Your task to perform on an android device: check out phone information Image 0: 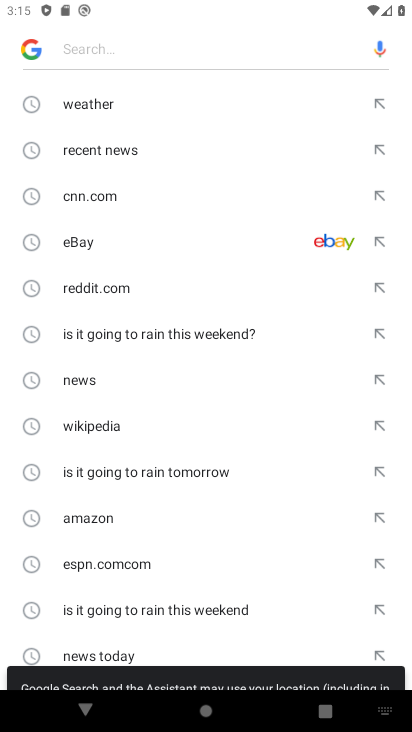
Step 0: press home button
Your task to perform on an android device: check out phone information Image 1: 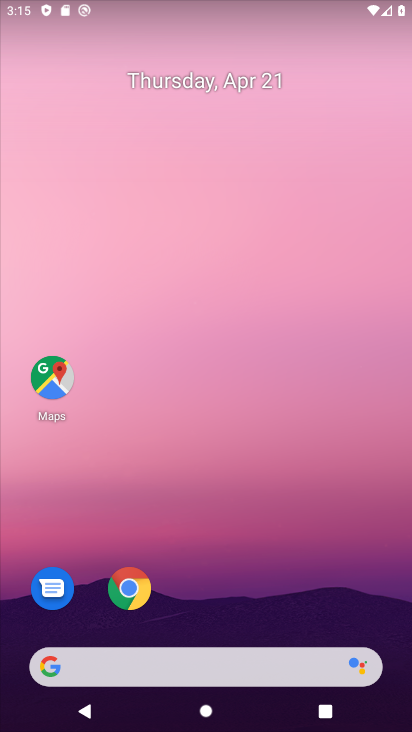
Step 1: drag from (176, 656) to (165, 138)
Your task to perform on an android device: check out phone information Image 2: 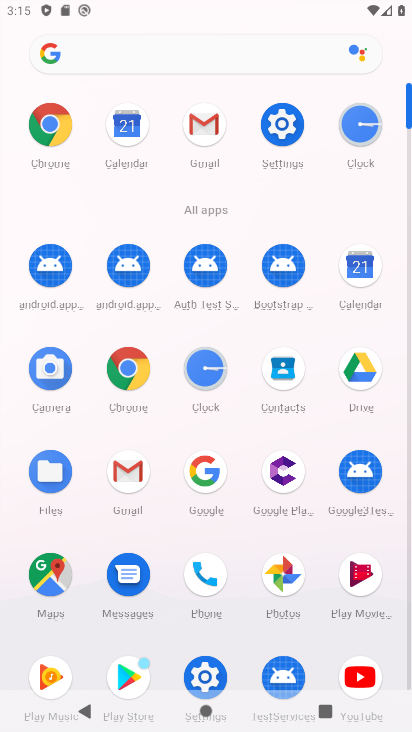
Step 2: click (206, 675)
Your task to perform on an android device: check out phone information Image 3: 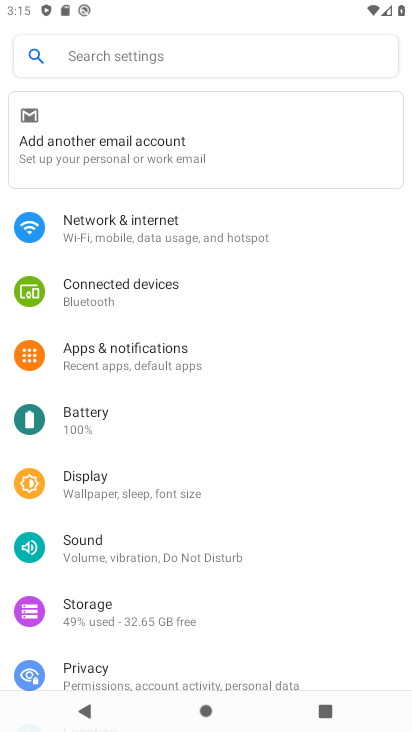
Step 3: drag from (141, 587) to (81, 39)
Your task to perform on an android device: check out phone information Image 4: 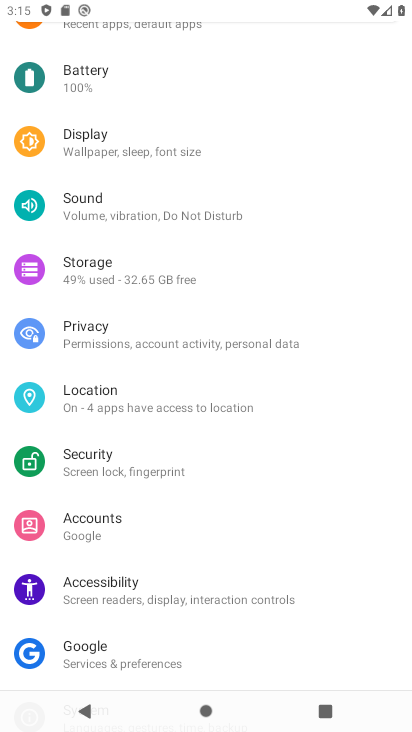
Step 4: drag from (131, 610) to (156, 31)
Your task to perform on an android device: check out phone information Image 5: 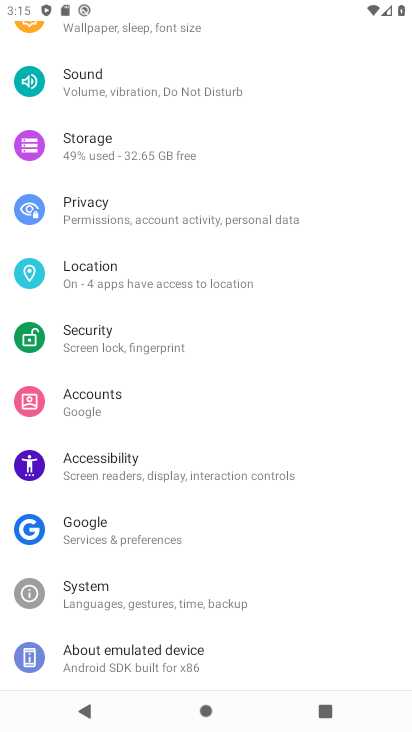
Step 5: click (141, 648)
Your task to perform on an android device: check out phone information Image 6: 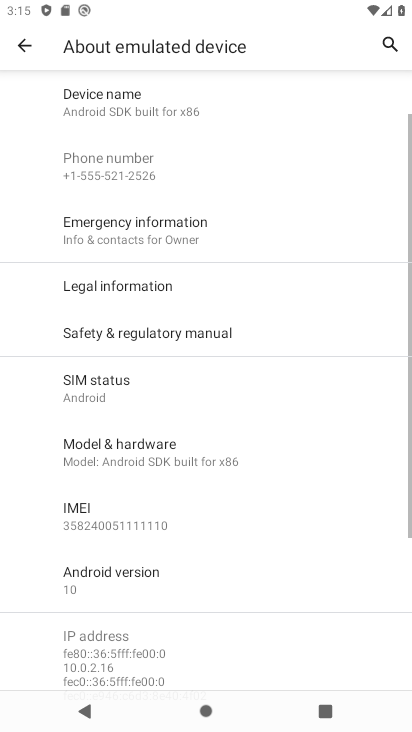
Step 6: task complete